Your task to perform on an android device: turn off wifi Image 0: 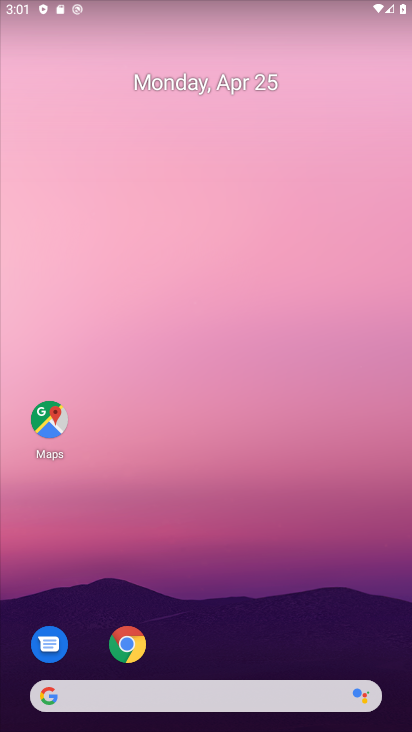
Step 0: click (281, 629)
Your task to perform on an android device: turn off wifi Image 1: 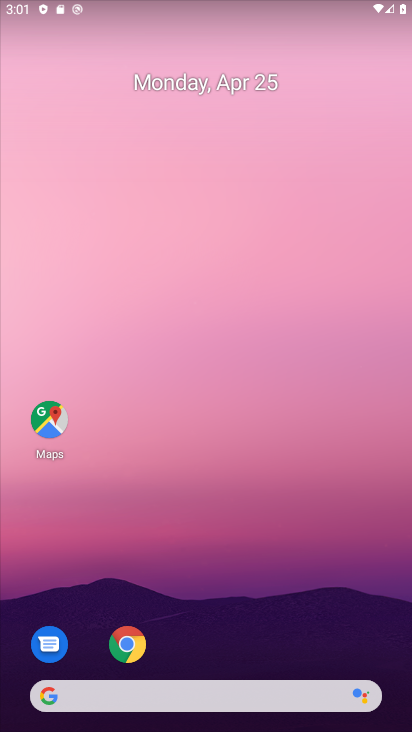
Step 1: click (230, 204)
Your task to perform on an android device: turn off wifi Image 2: 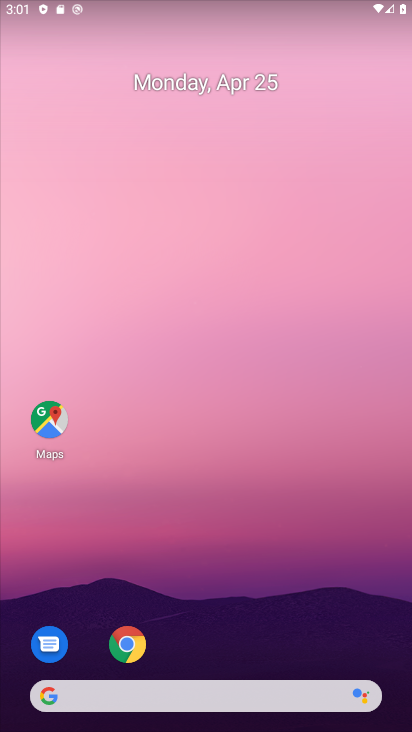
Step 2: drag from (216, 638) to (190, 91)
Your task to perform on an android device: turn off wifi Image 3: 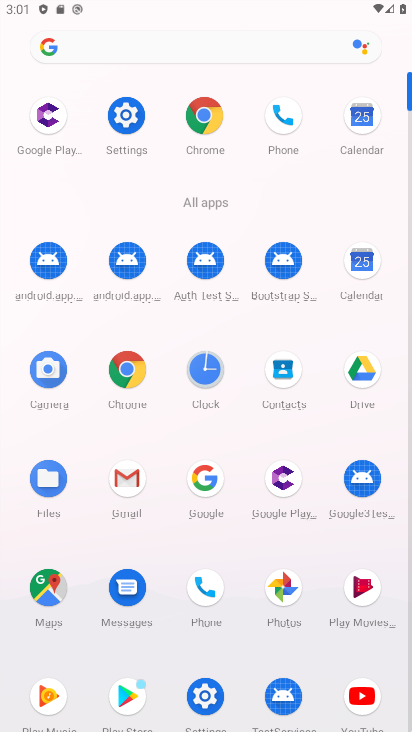
Step 3: click (124, 124)
Your task to perform on an android device: turn off wifi Image 4: 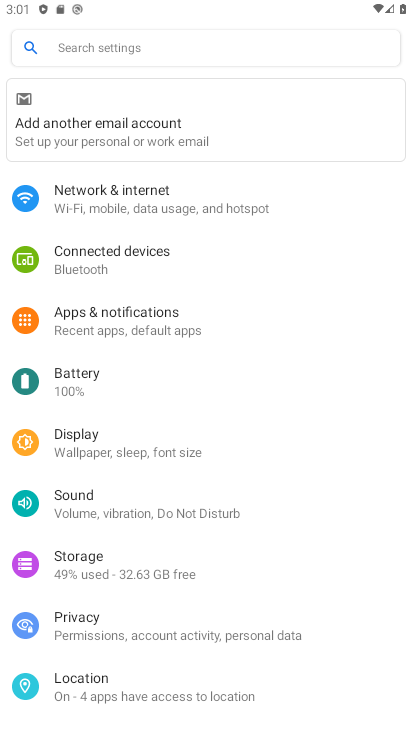
Step 4: click (150, 192)
Your task to perform on an android device: turn off wifi Image 5: 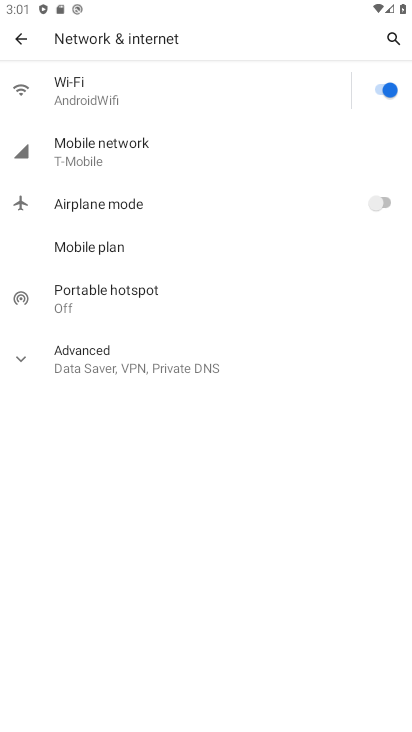
Step 5: click (392, 91)
Your task to perform on an android device: turn off wifi Image 6: 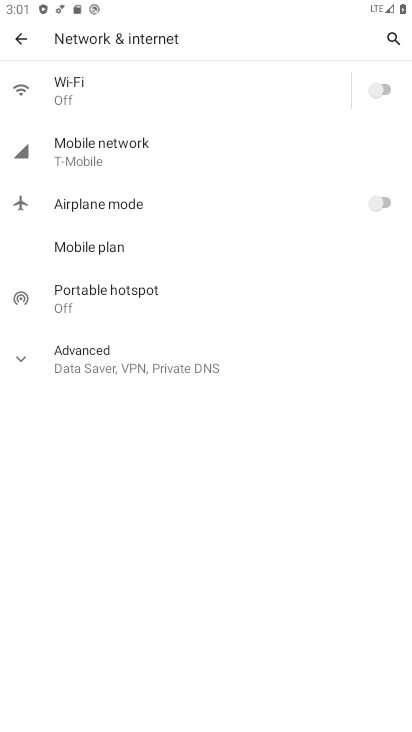
Step 6: task complete